Your task to perform on an android device: show emergency info Image 0: 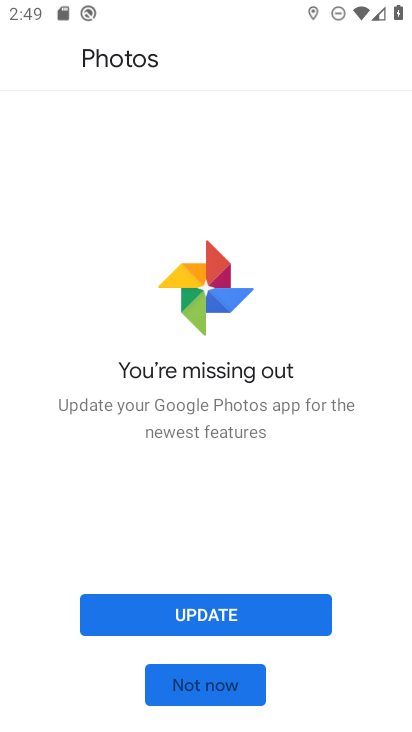
Step 0: press home button
Your task to perform on an android device: show emergency info Image 1: 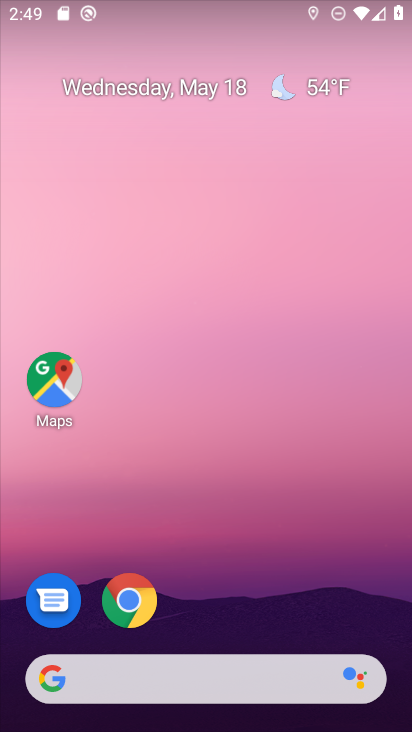
Step 1: drag from (204, 605) to (250, 114)
Your task to perform on an android device: show emergency info Image 2: 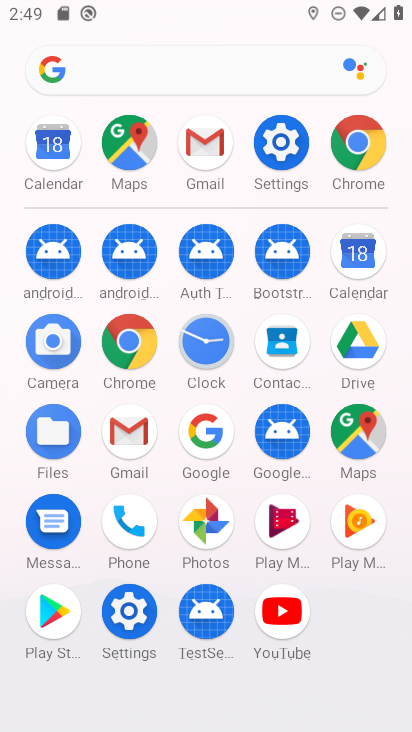
Step 2: click (283, 164)
Your task to perform on an android device: show emergency info Image 3: 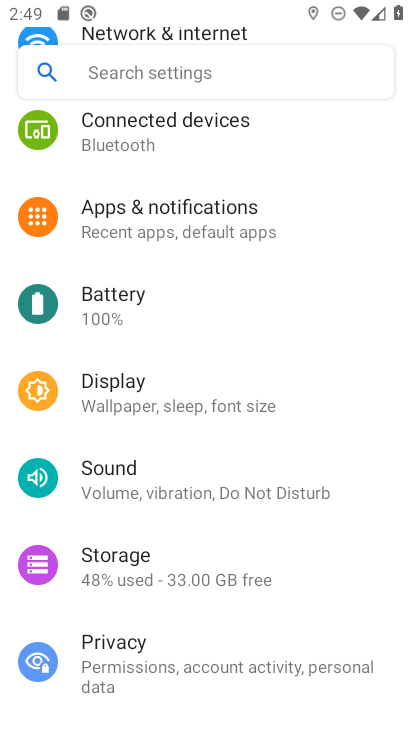
Step 3: drag from (147, 583) to (195, 172)
Your task to perform on an android device: show emergency info Image 4: 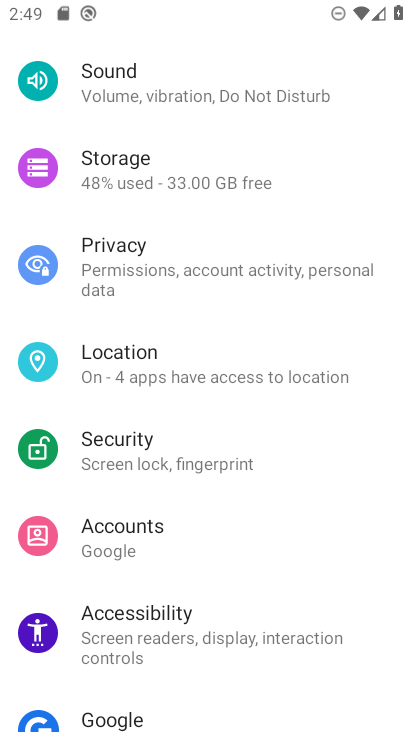
Step 4: drag from (171, 653) to (268, 206)
Your task to perform on an android device: show emergency info Image 5: 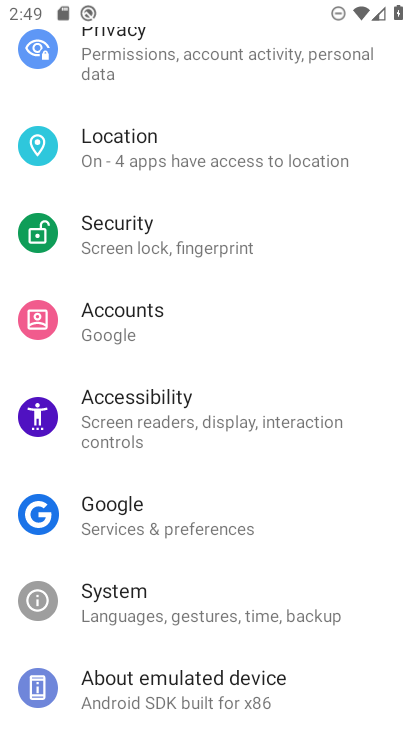
Step 5: click (175, 693)
Your task to perform on an android device: show emergency info Image 6: 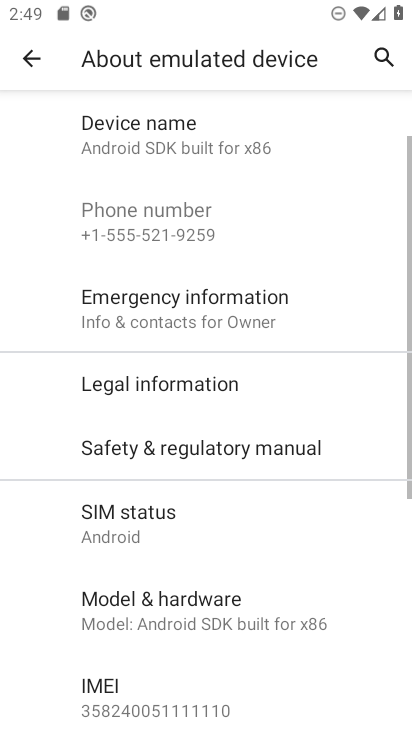
Step 6: click (244, 324)
Your task to perform on an android device: show emergency info Image 7: 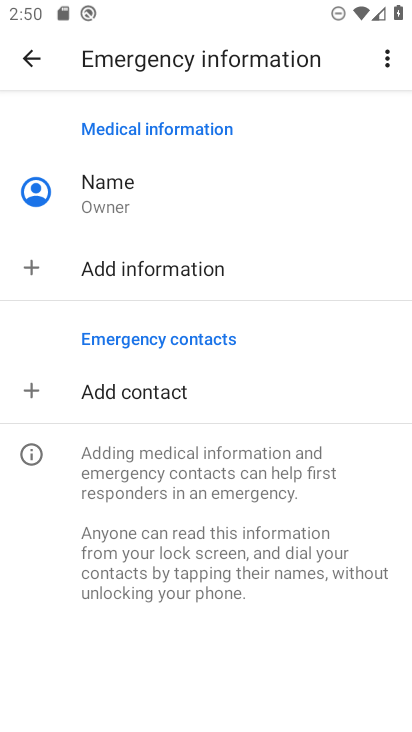
Step 7: task complete